Your task to perform on an android device: Check the news Image 0: 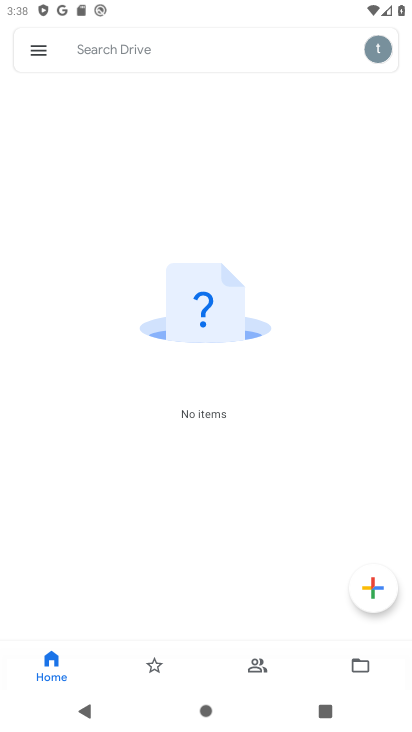
Step 0: press home button
Your task to perform on an android device: Check the news Image 1: 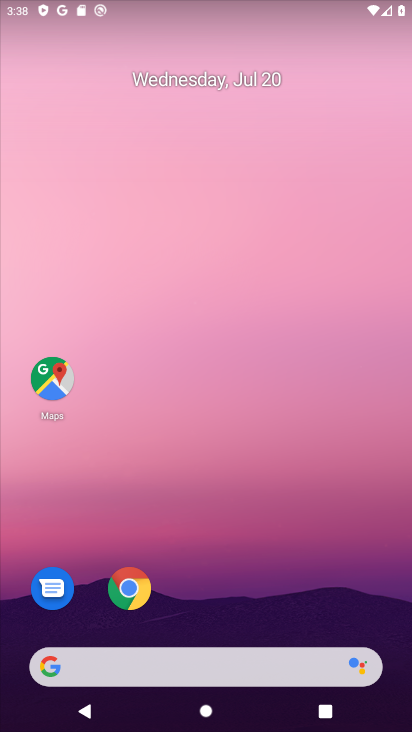
Step 1: click (159, 660)
Your task to perform on an android device: Check the news Image 2: 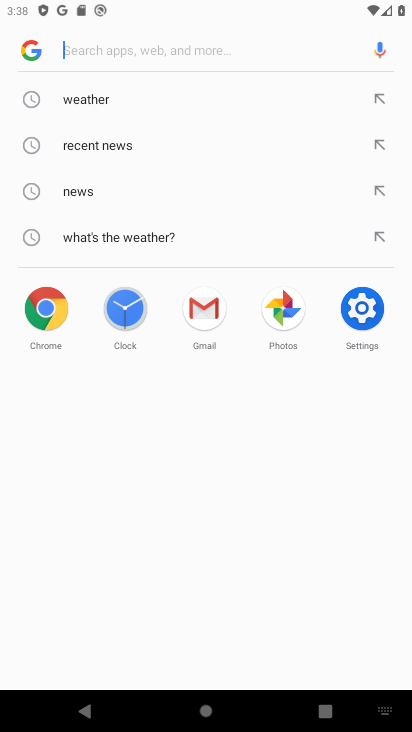
Step 2: click (30, 40)
Your task to perform on an android device: Check the news Image 3: 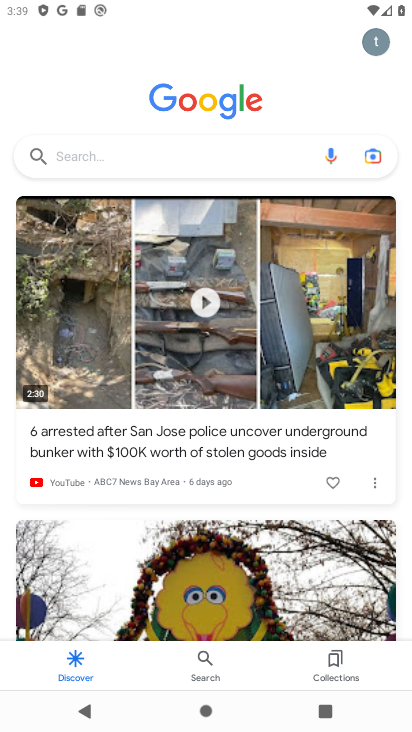
Step 3: task complete